Your task to perform on an android device: open wifi settings Image 0: 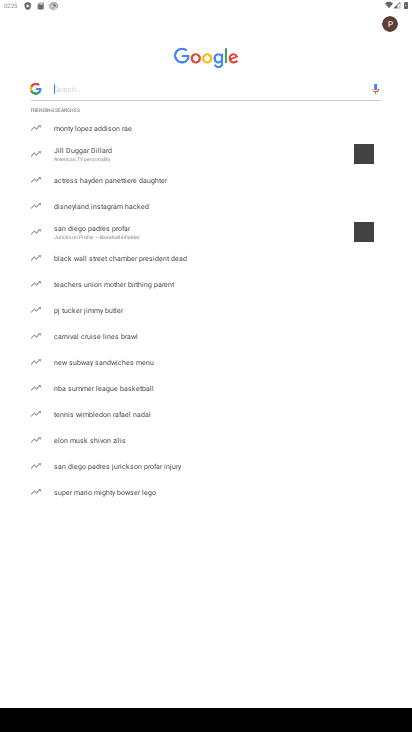
Step 0: press home button
Your task to perform on an android device: open wifi settings Image 1: 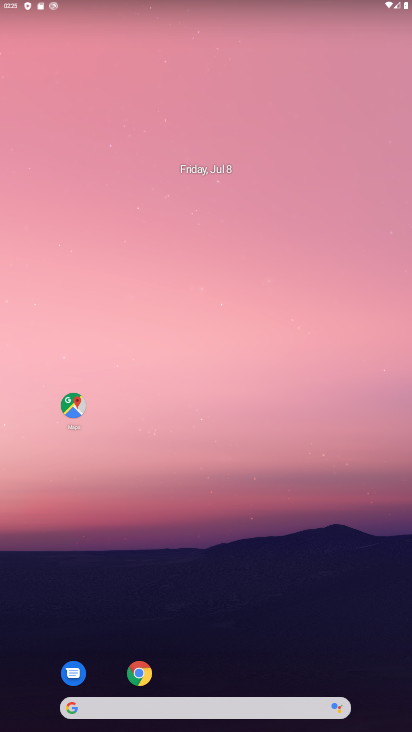
Step 1: drag from (407, 4) to (211, 496)
Your task to perform on an android device: open wifi settings Image 2: 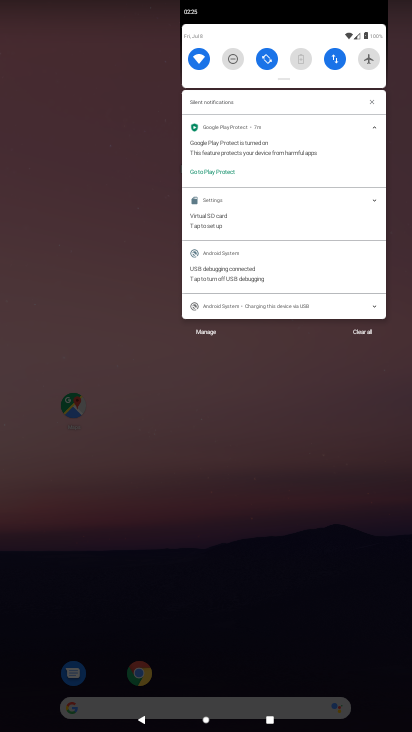
Step 2: click (199, 70)
Your task to perform on an android device: open wifi settings Image 3: 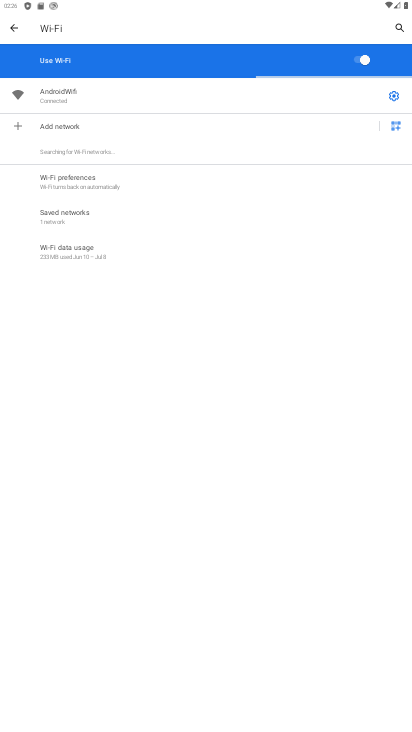
Step 3: task complete